Your task to perform on an android device: open device folders in google photos Image 0: 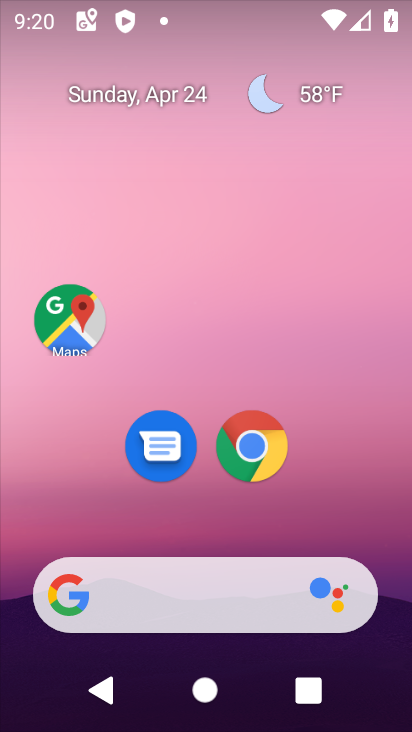
Step 0: drag from (223, 550) to (333, 116)
Your task to perform on an android device: open device folders in google photos Image 1: 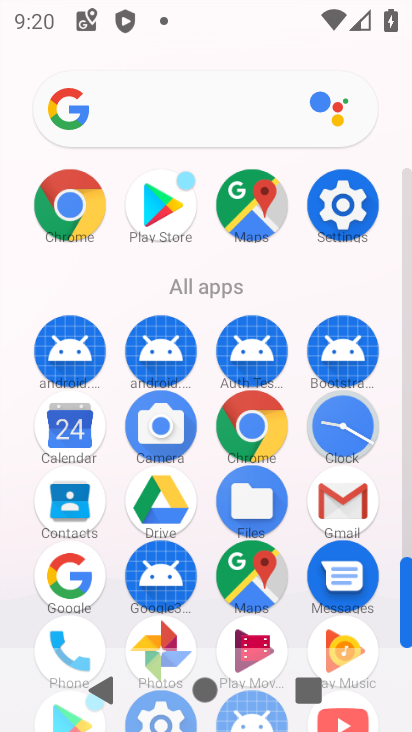
Step 1: drag from (198, 579) to (349, 209)
Your task to perform on an android device: open device folders in google photos Image 2: 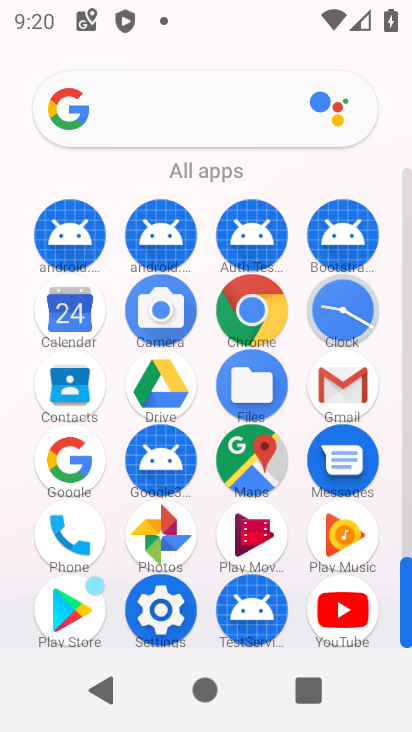
Step 2: click (163, 543)
Your task to perform on an android device: open device folders in google photos Image 3: 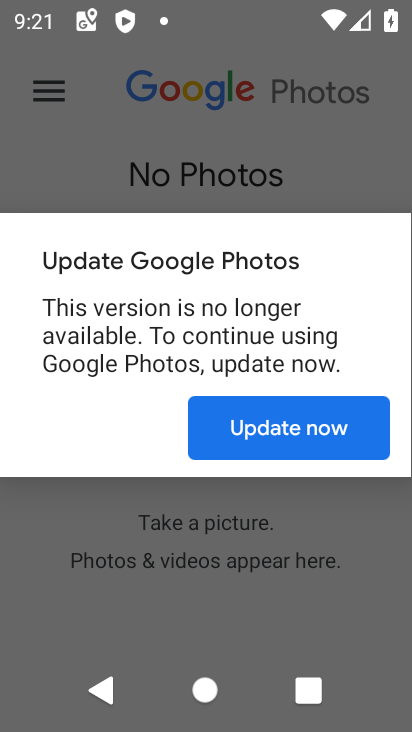
Step 3: click (271, 439)
Your task to perform on an android device: open device folders in google photos Image 4: 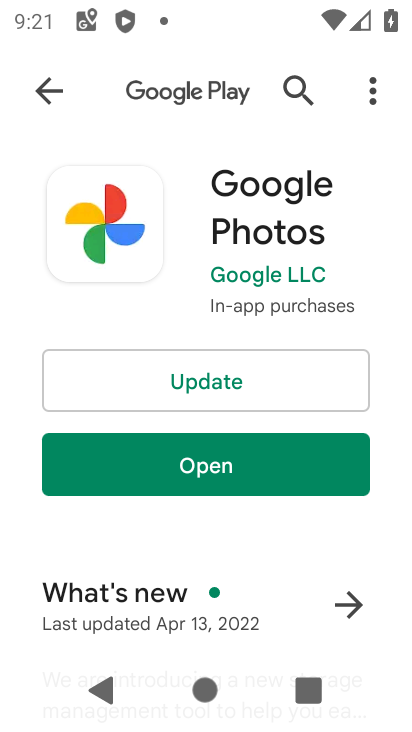
Step 4: click (211, 470)
Your task to perform on an android device: open device folders in google photos Image 5: 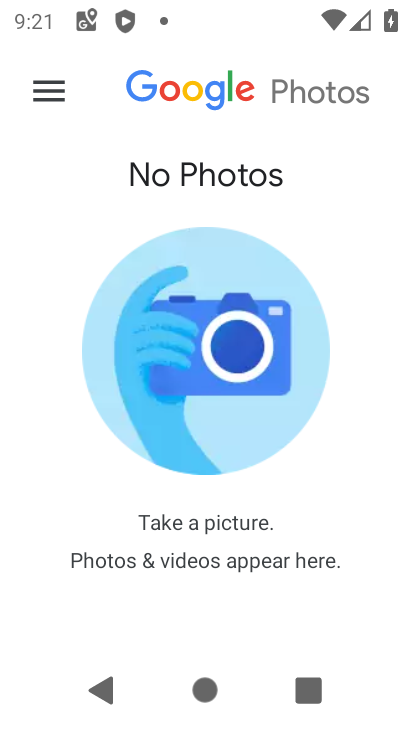
Step 5: click (40, 86)
Your task to perform on an android device: open device folders in google photos Image 6: 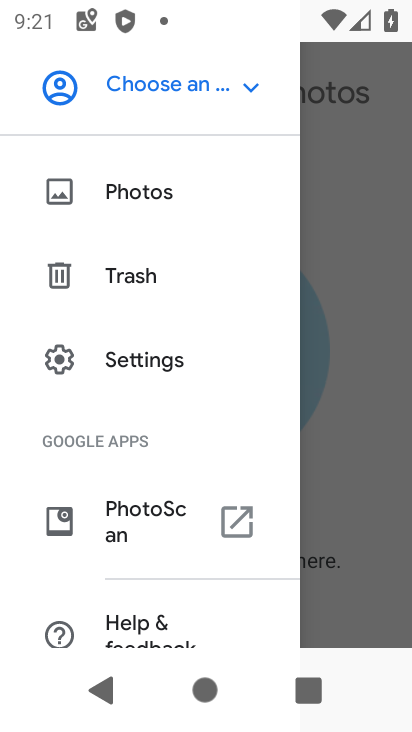
Step 6: drag from (190, 257) to (180, 603)
Your task to perform on an android device: open device folders in google photos Image 7: 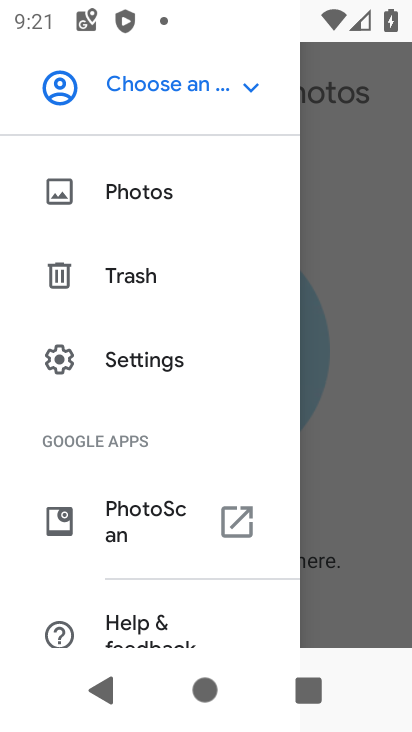
Step 7: drag from (214, 196) to (165, 606)
Your task to perform on an android device: open device folders in google photos Image 8: 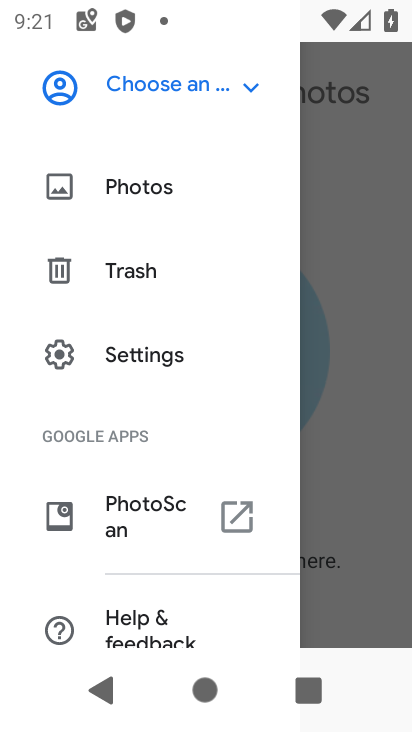
Step 8: drag from (145, 448) to (155, 561)
Your task to perform on an android device: open device folders in google photos Image 9: 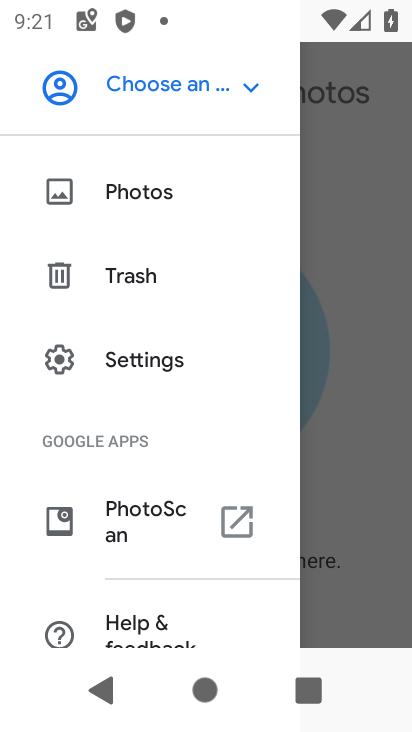
Step 9: click (129, 354)
Your task to perform on an android device: open device folders in google photos Image 10: 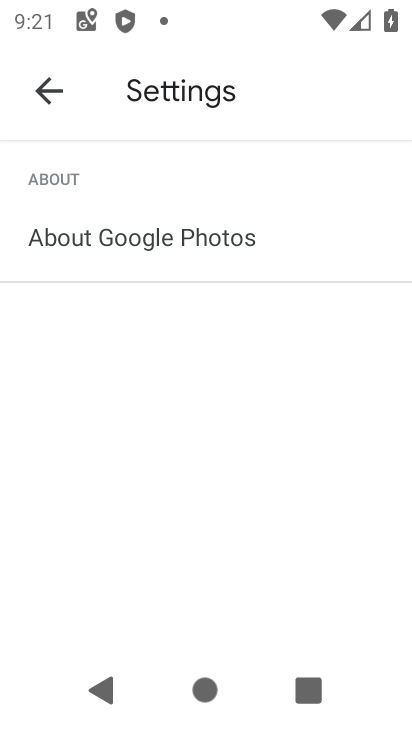
Step 10: click (178, 224)
Your task to perform on an android device: open device folders in google photos Image 11: 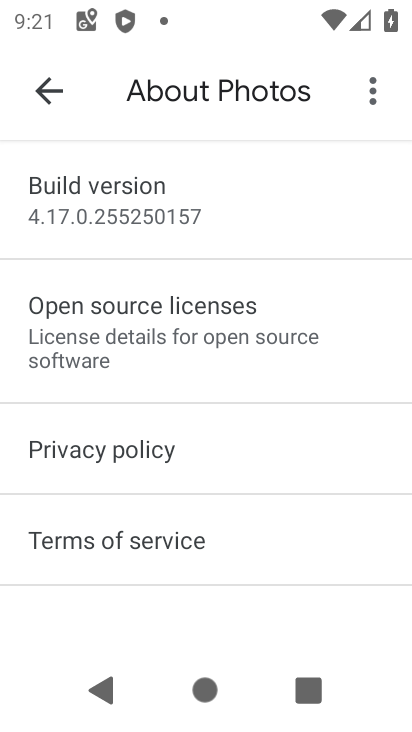
Step 11: click (59, 85)
Your task to perform on an android device: open device folders in google photos Image 12: 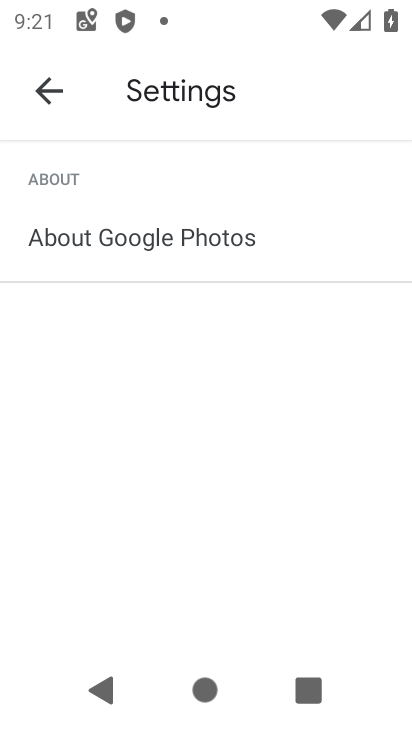
Step 12: click (55, 90)
Your task to perform on an android device: open device folders in google photos Image 13: 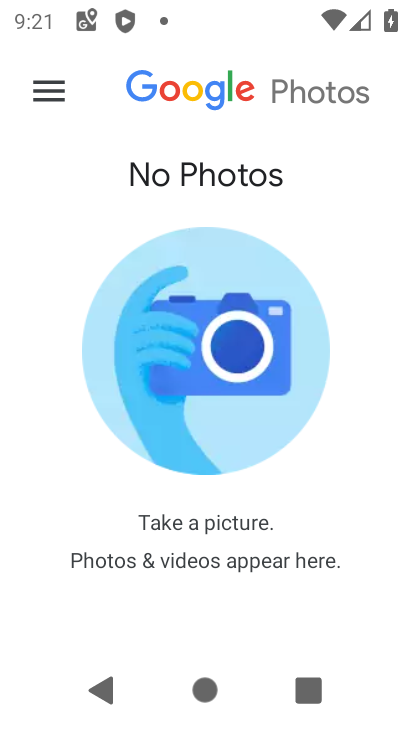
Step 13: click (49, 78)
Your task to perform on an android device: open device folders in google photos Image 14: 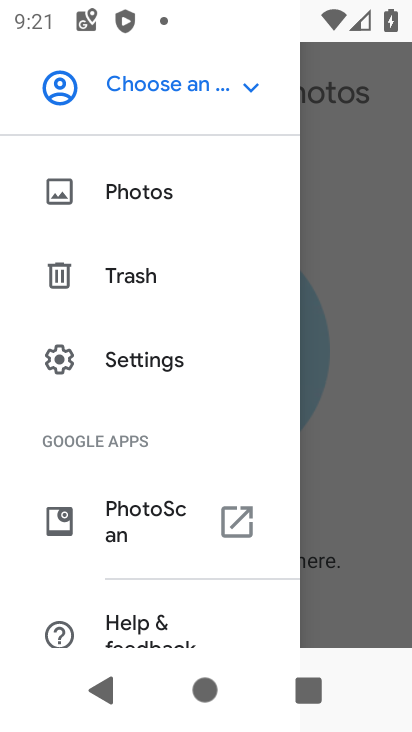
Step 14: drag from (199, 180) to (157, 558)
Your task to perform on an android device: open device folders in google photos Image 15: 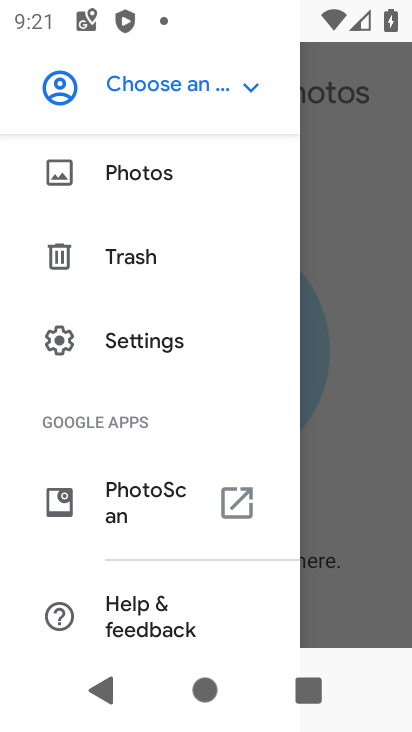
Step 15: click (251, 87)
Your task to perform on an android device: open device folders in google photos Image 16: 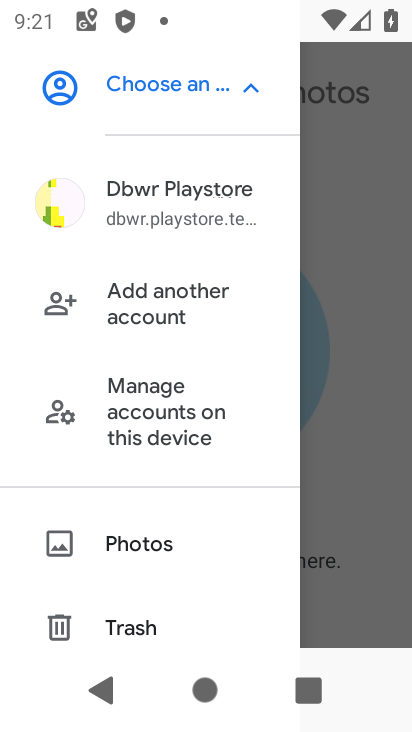
Step 16: click (251, 87)
Your task to perform on an android device: open device folders in google photos Image 17: 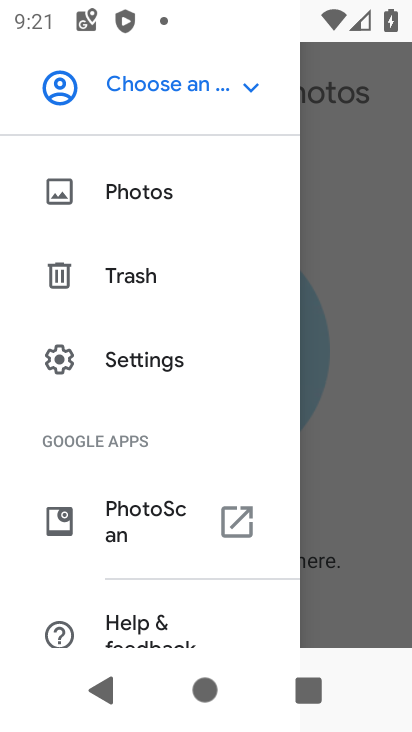
Step 17: task complete